Your task to perform on an android device: Open Chrome and go to settings Image 0: 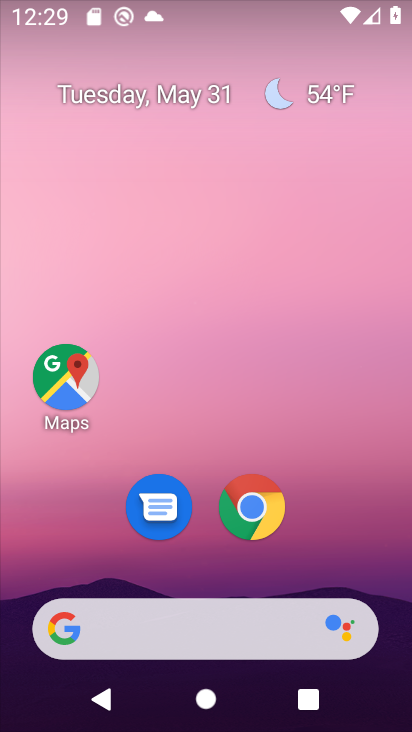
Step 0: drag from (252, 647) to (222, 219)
Your task to perform on an android device: Open Chrome and go to settings Image 1: 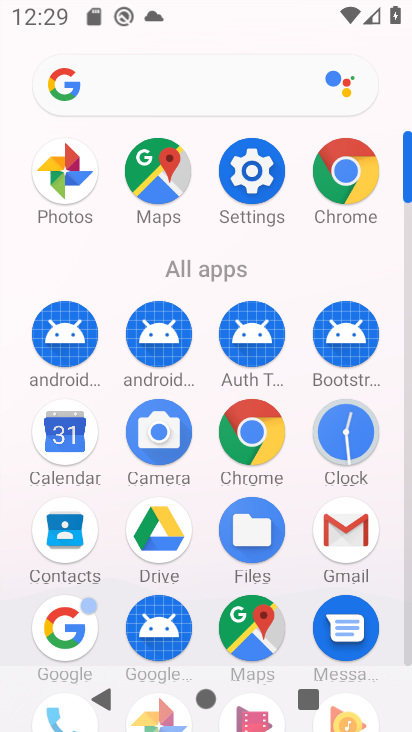
Step 1: click (246, 169)
Your task to perform on an android device: Open Chrome and go to settings Image 2: 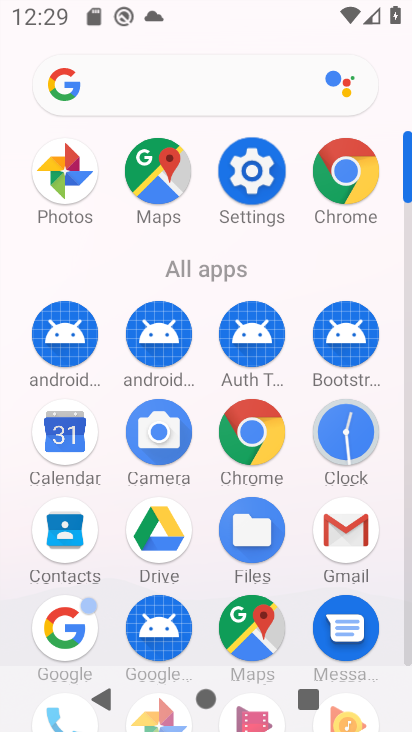
Step 2: click (247, 168)
Your task to perform on an android device: Open Chrome and go to settings Image 3: 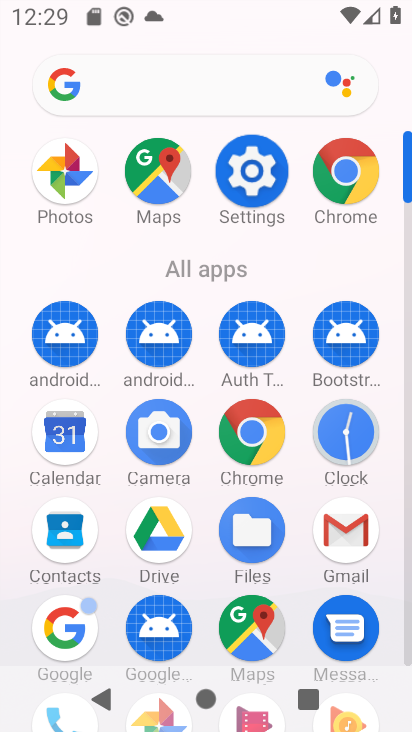
Step 3: click (247, 168)
Your task to perform on an android device: Open Chrome and go to settings Image 4: 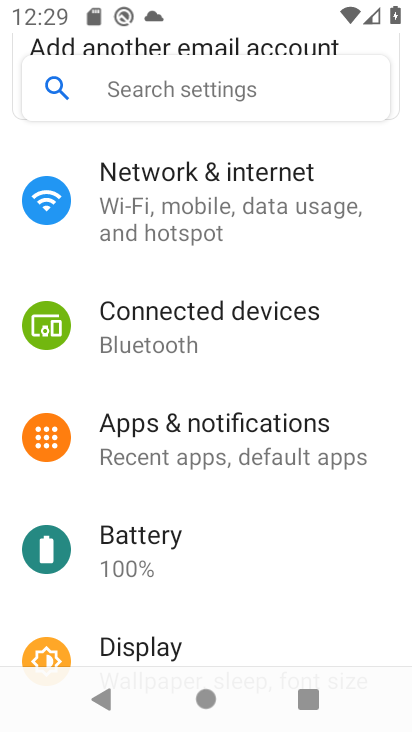
Step 4: press back button
Your task to perform on an android device: Open Chrome and go to settings Image 5: 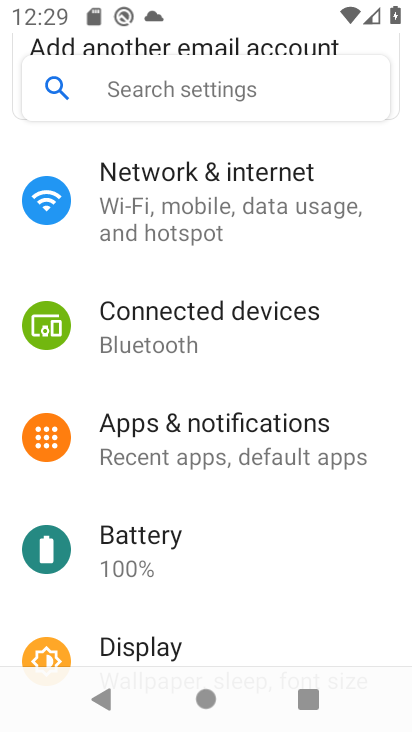
Step 5: press back button
Your task to perform on an android device: Open Chrome and go to settings Image 6: 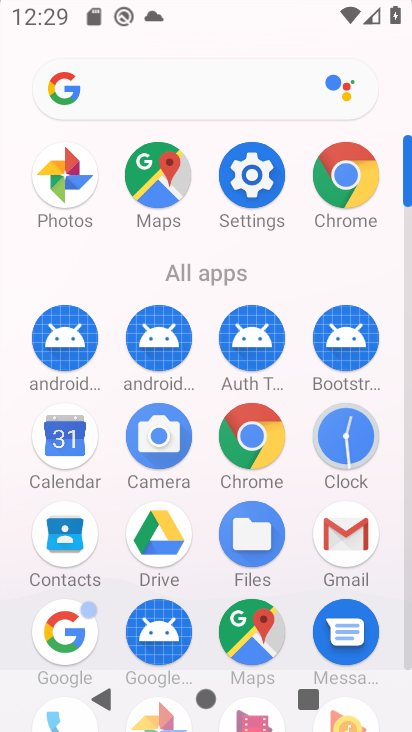
Step 6: press back button
Your task to perform on an android device: Open Chrome and go to settings Image 7: 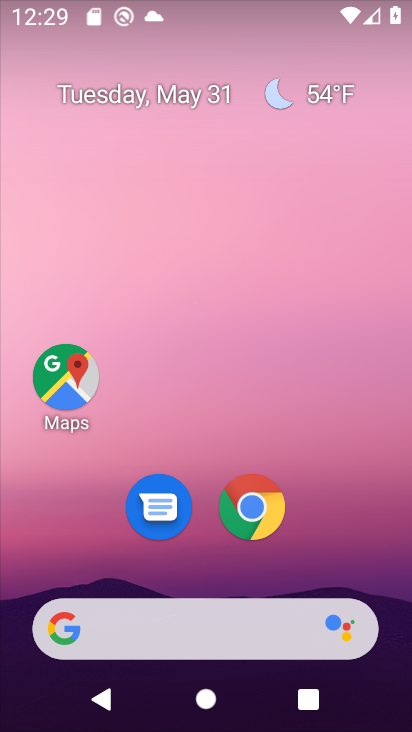
Step 7: drag from (254, 667) to (137, 93)
Your task to perform on an android device: Open Chrome and go to settings Image 8: 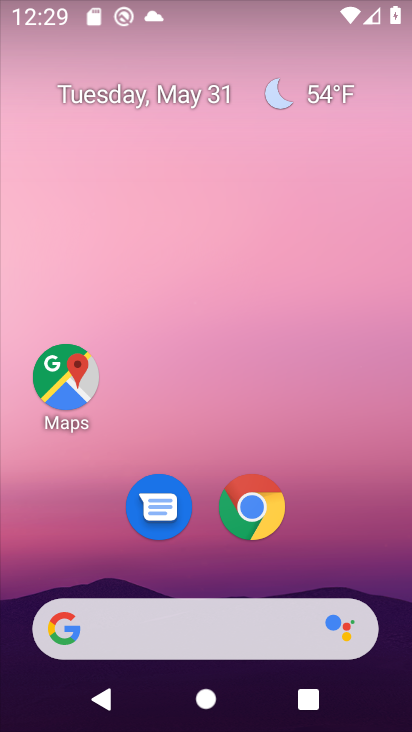
Step 8: drag from (259, 602) to (204, 178)
Your task to perform on an android device: Open Chrome and go to settings Image 9: 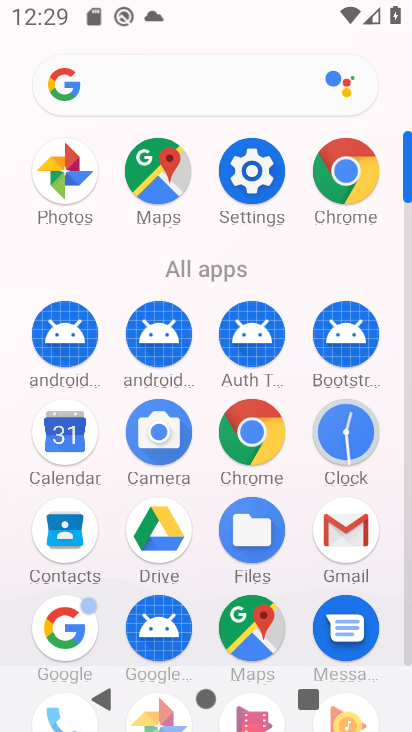
Step 9: click (238, 428)
Your task to perform on an android device: Open Chrome and go to settings Image 10: 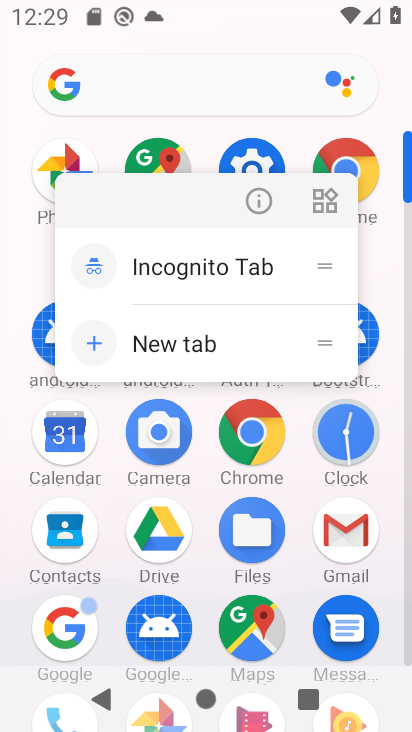
Step 10: click (256, 431)
Your task to perform on an android device: Open Chrome and go to settings Image 11: 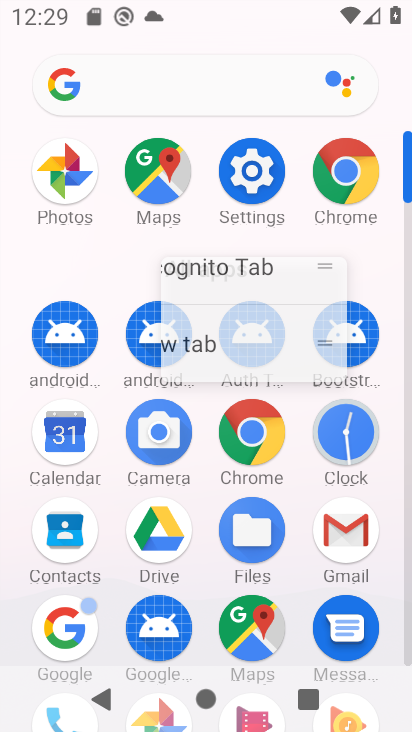
Step 11: click (257, 431)
Your task to perform on an android device: Open Chrome and go to settings Image 12: 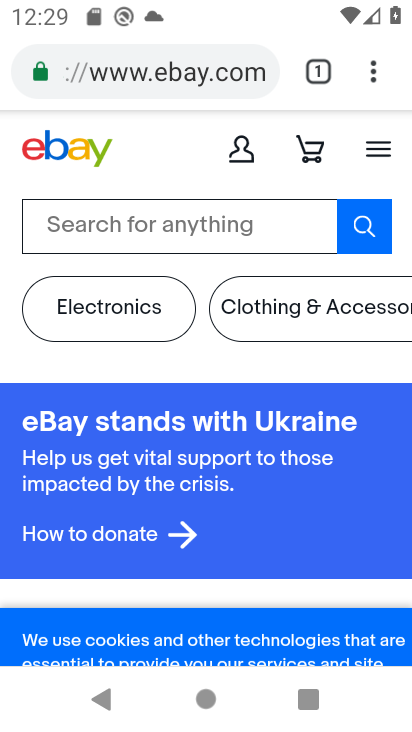
Step 12: drag from (373, 77) to (120, 495)
Your task to perform on an android device: Open Chrome and go to settings Image 13: 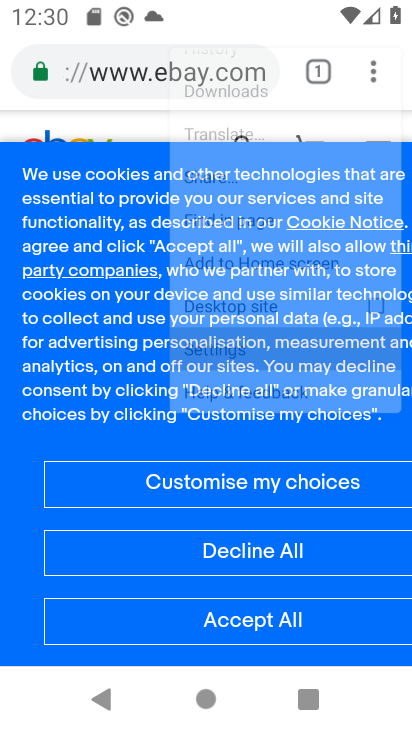
Step 13: click (121, 496)
Your task to perform on an android device: Open Chrome and go to settings Image 14: 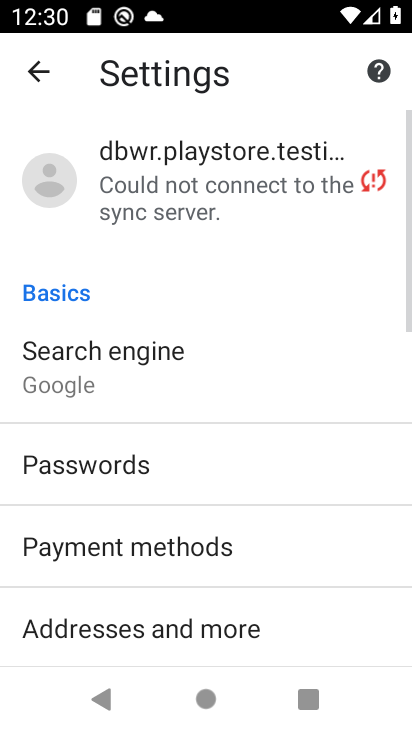
Step 14: drag from (177, 473) to (163, 149)
Your task to perform on an android device: Open Chrome and go to settings Image 15: 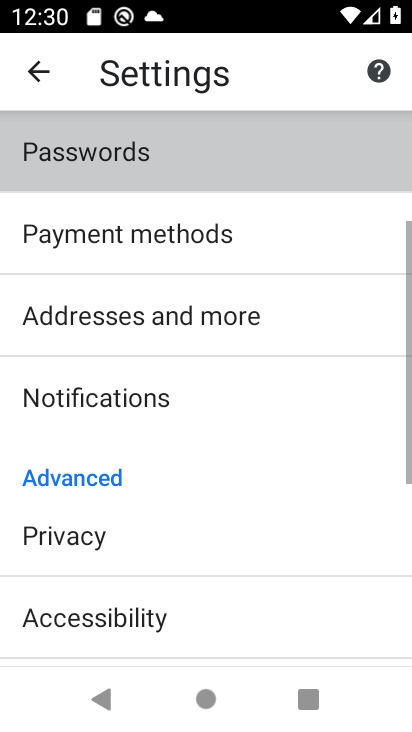
Step 15: drag from (185, 432) to (205, 114)
Your task to perform on an android device: Open Chrome and go to settings Image 16: 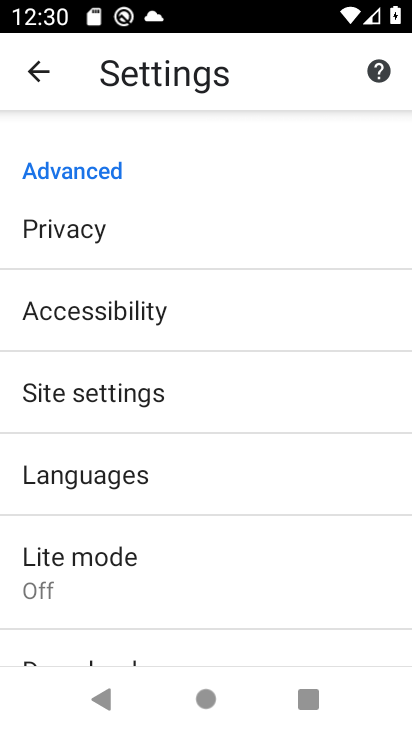
Step 16: click (75, 384)
Your task to perform on an android device: Open Chrome and go to settings Image 17: 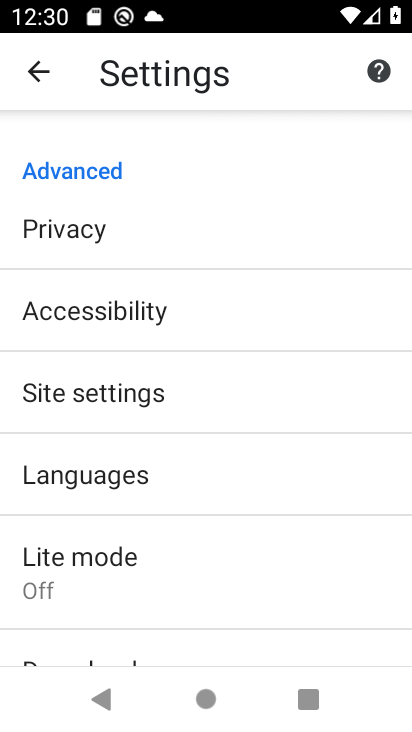
Step 17: click (76, 384)
Your task to perform on an android device: Open Chrome and go to settings Image 18: 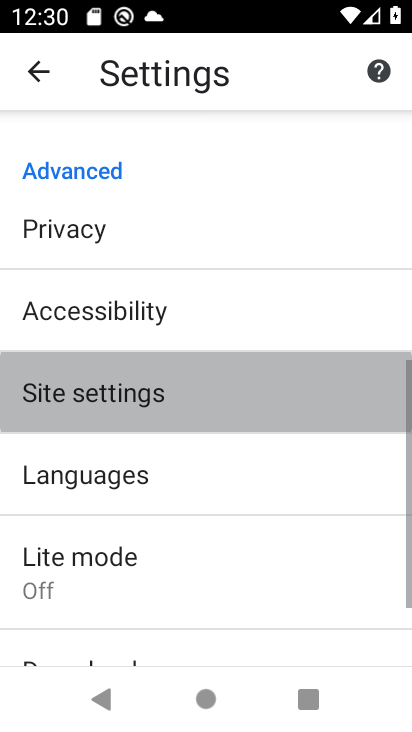
Step 18: click (77, 384)
Your task to perform on an android device: Open Chrome and go to settings Image 19: 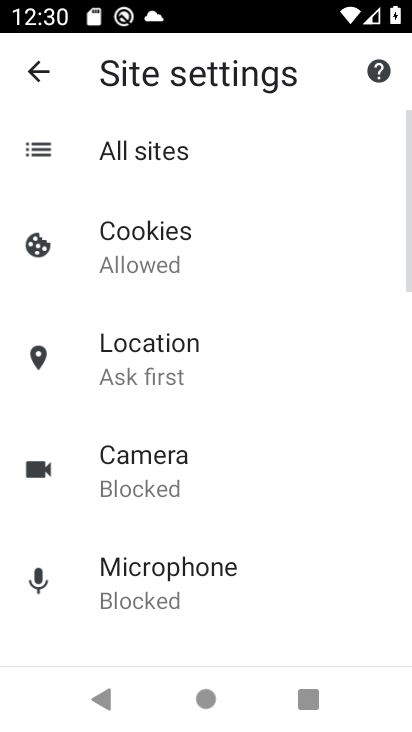
Step 19: task complete